Your task to perform on an android device: Add "acer nitro" to the cart on costco, then select checkout. Image 0: 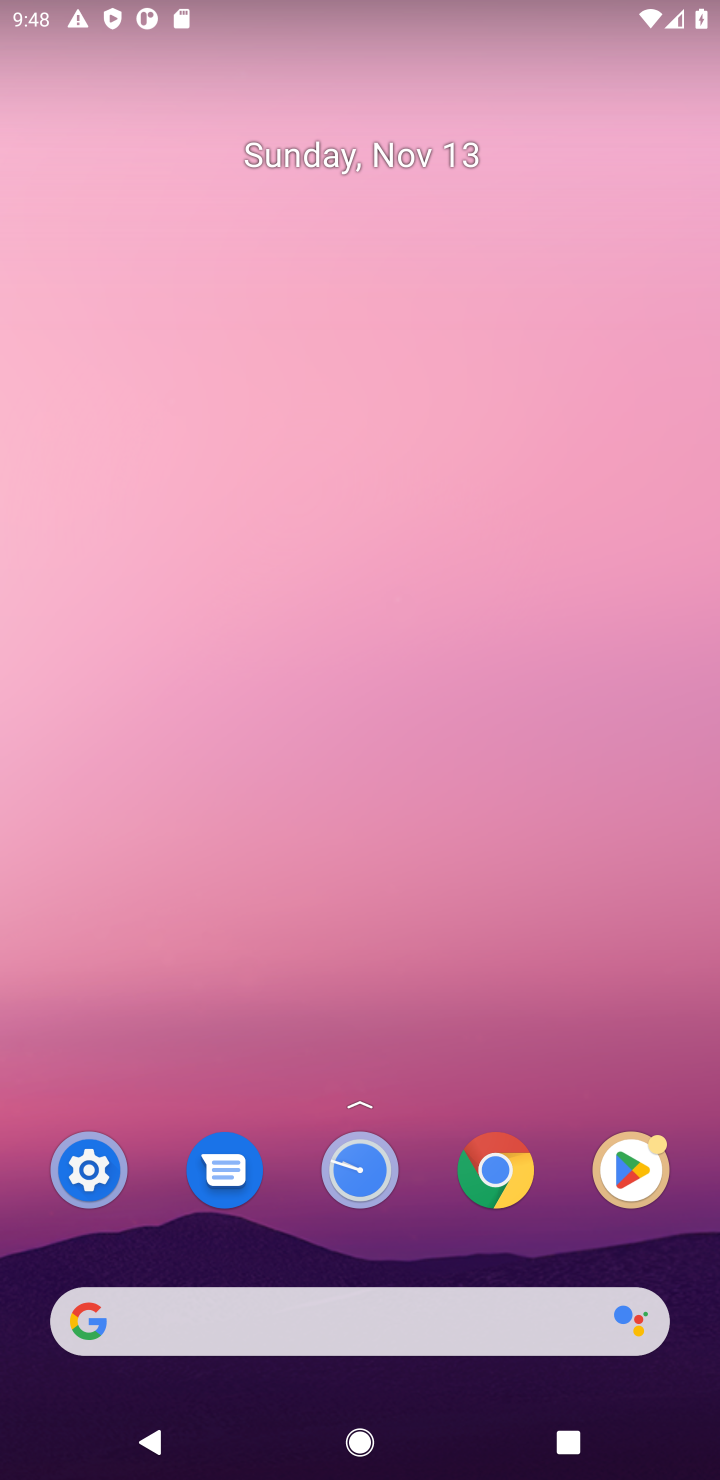
Step 0: press home button
Your task to perform on an android device: Add "acer nitro" to the cart on costco, then select checkout. Image 1: 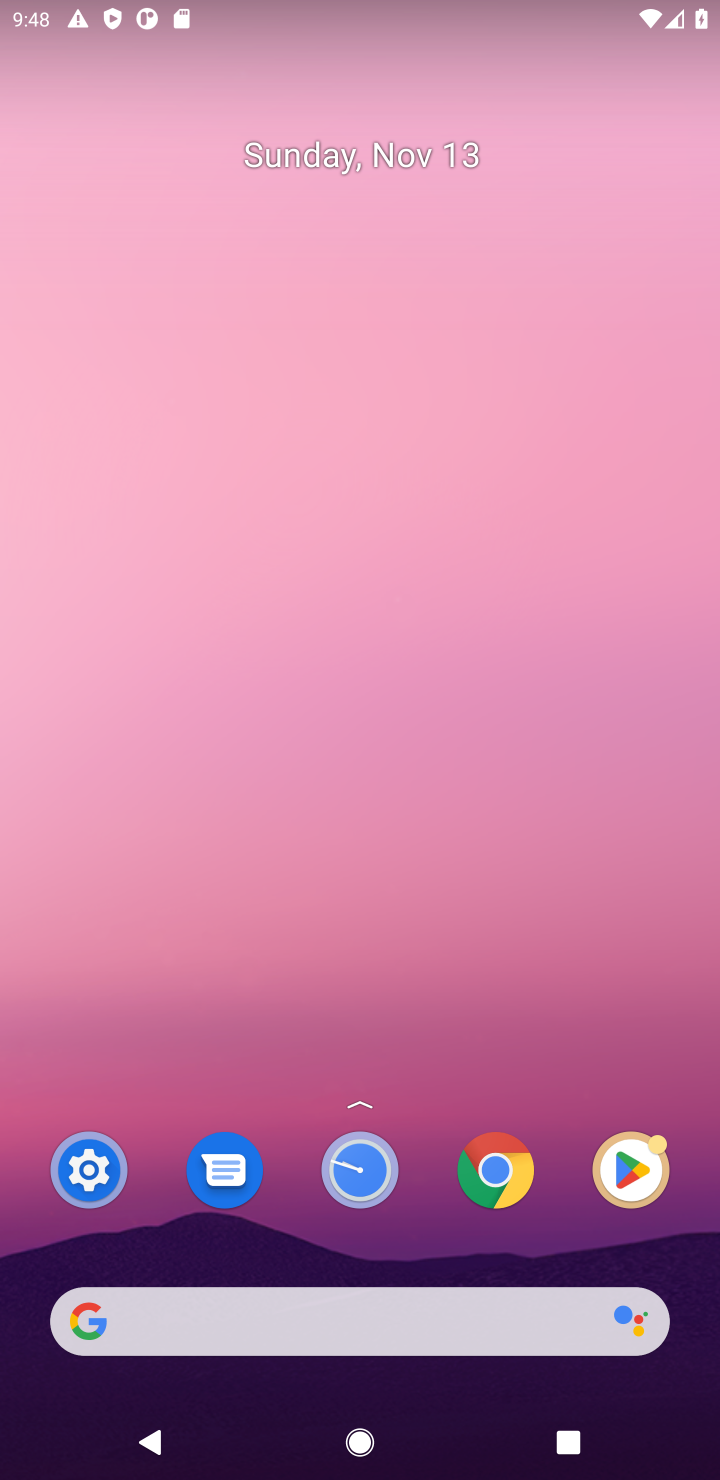
Step 1: click (342, 1317)
Your task to perform on an android device: Add "acer nitro" to the cart on costco, then select checkout. Image 2: 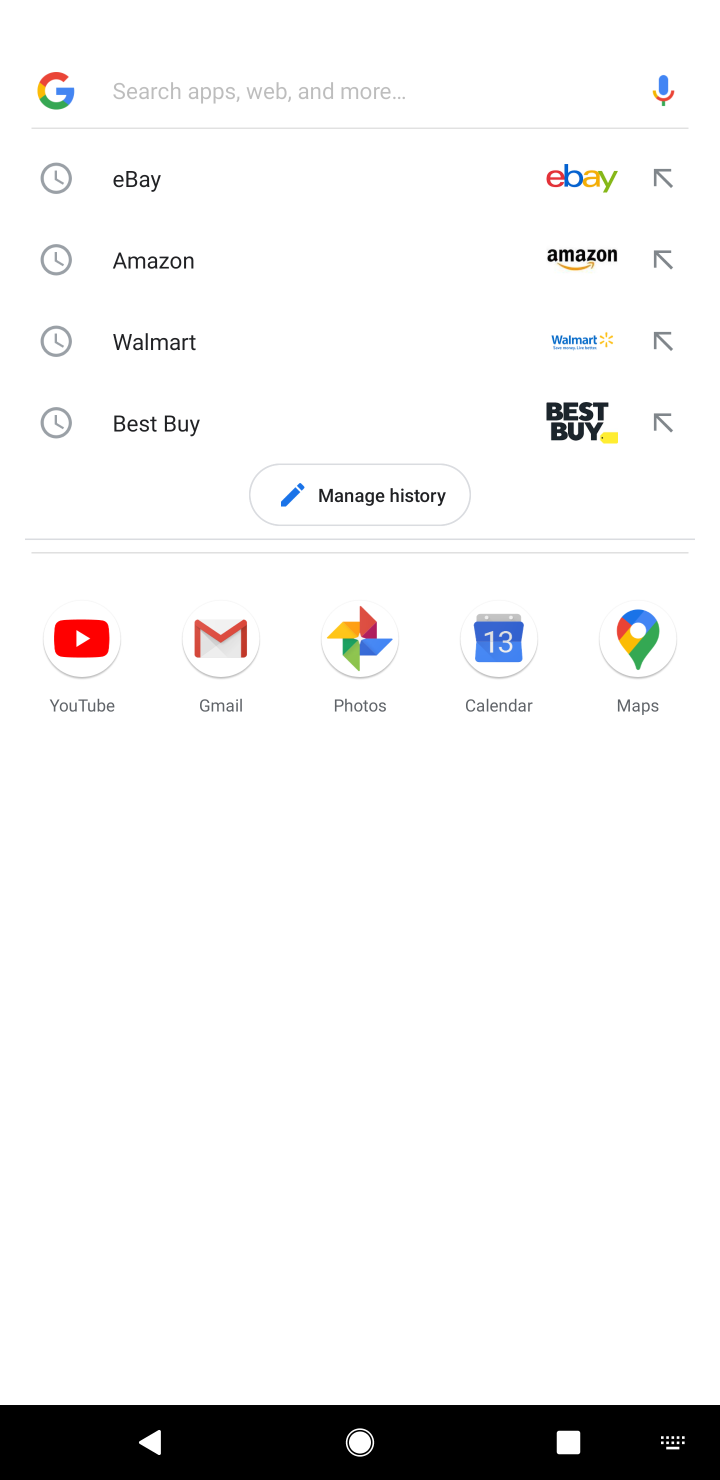
Step 2: type "costco.com"
Your task to perform on an android device: Add "acer nitro" to the cart on costco, then select checkout. Image 3: 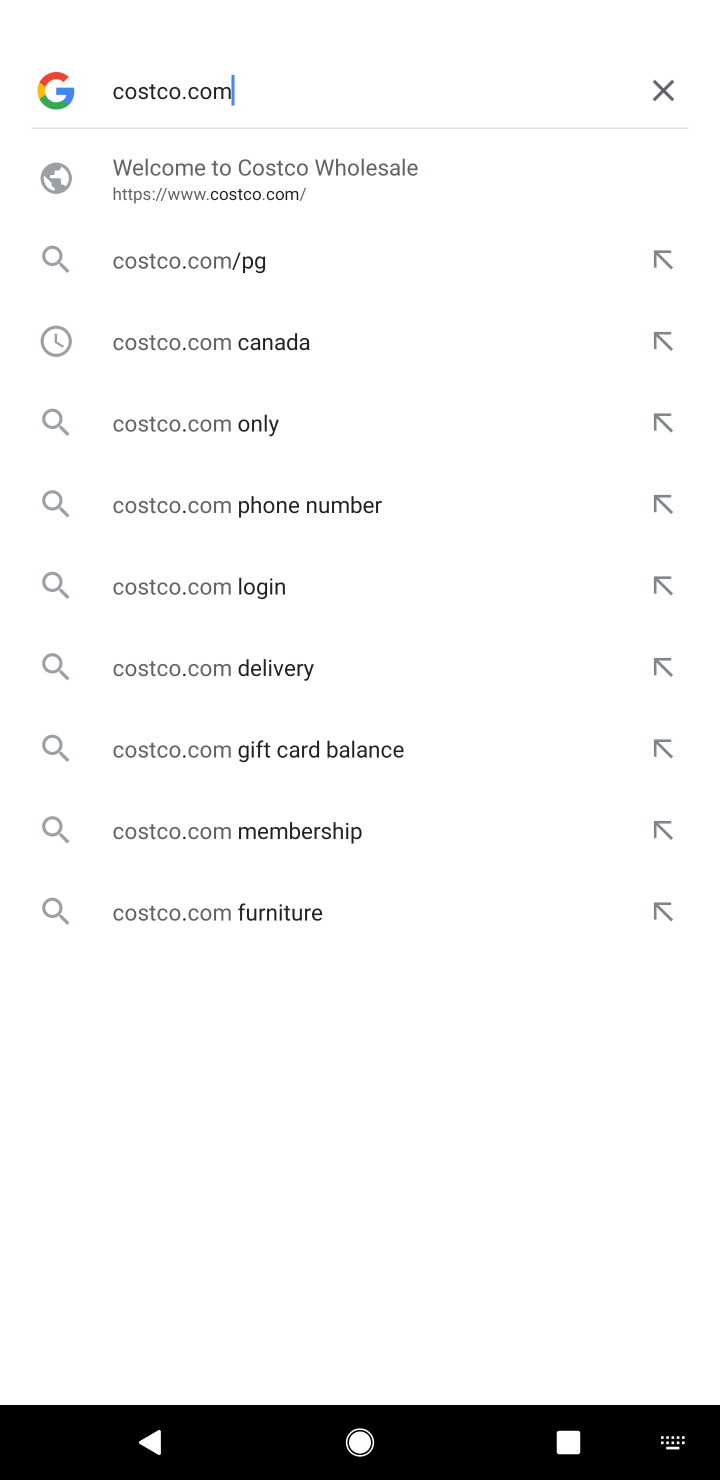
Step 3: click (305, 192)
Your task to perform on an android device: Add "acer nitro" to the cart on costco, then select checkout. Image 4: 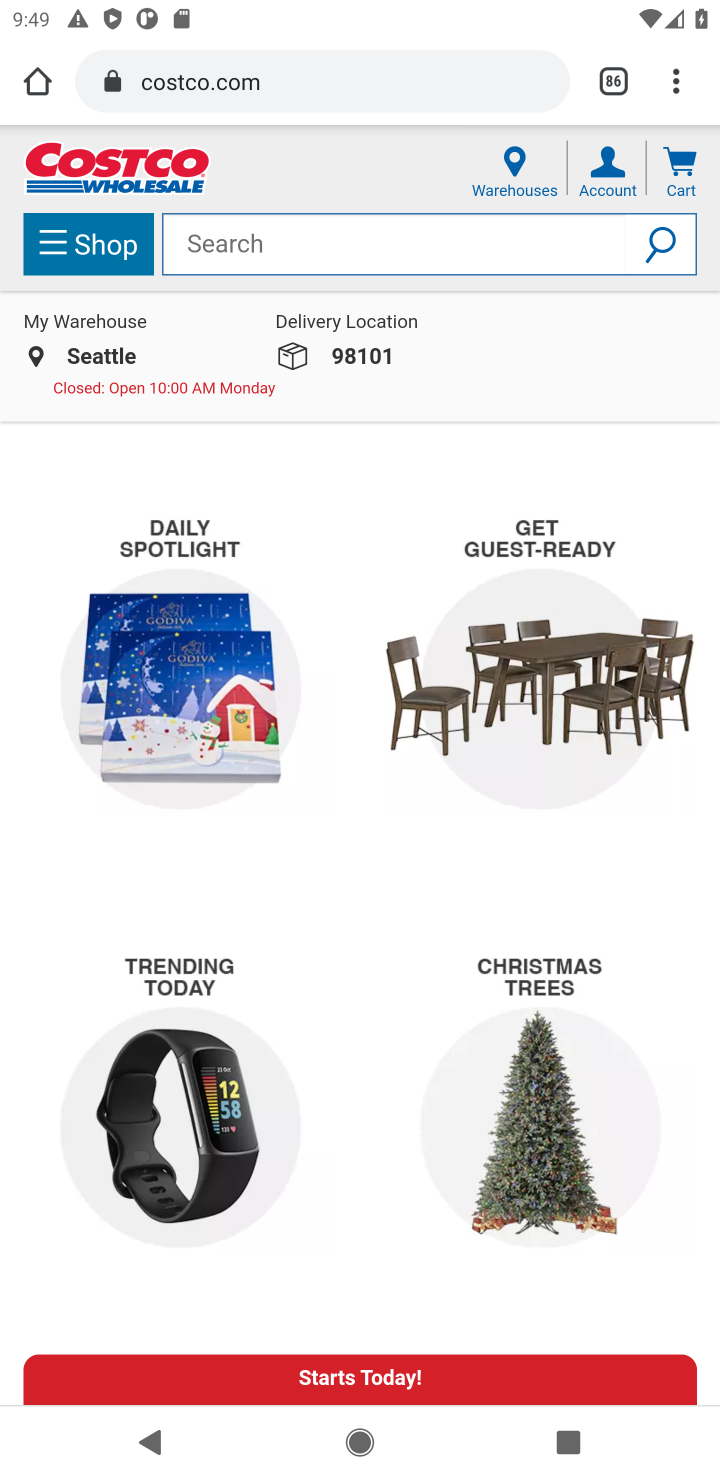
Step 4: click (342, 261)
Your task to perform on an android device: Add "acer nitro" to the cart on costco, then select checkout. Image 5: 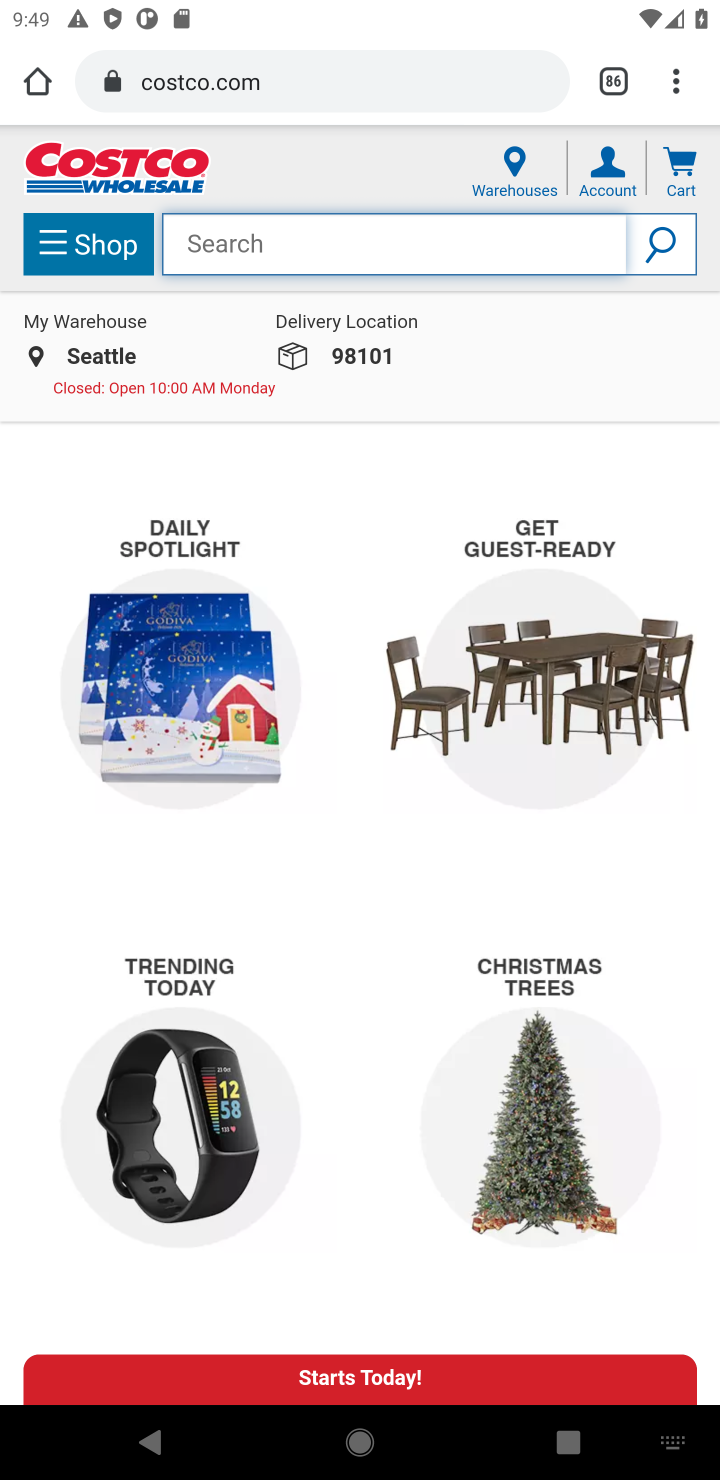
Step 5: type "costco.com"
Your task to perform on an android device: Add "acer nitro" to the cart on costco, then select checkout. Image 6: 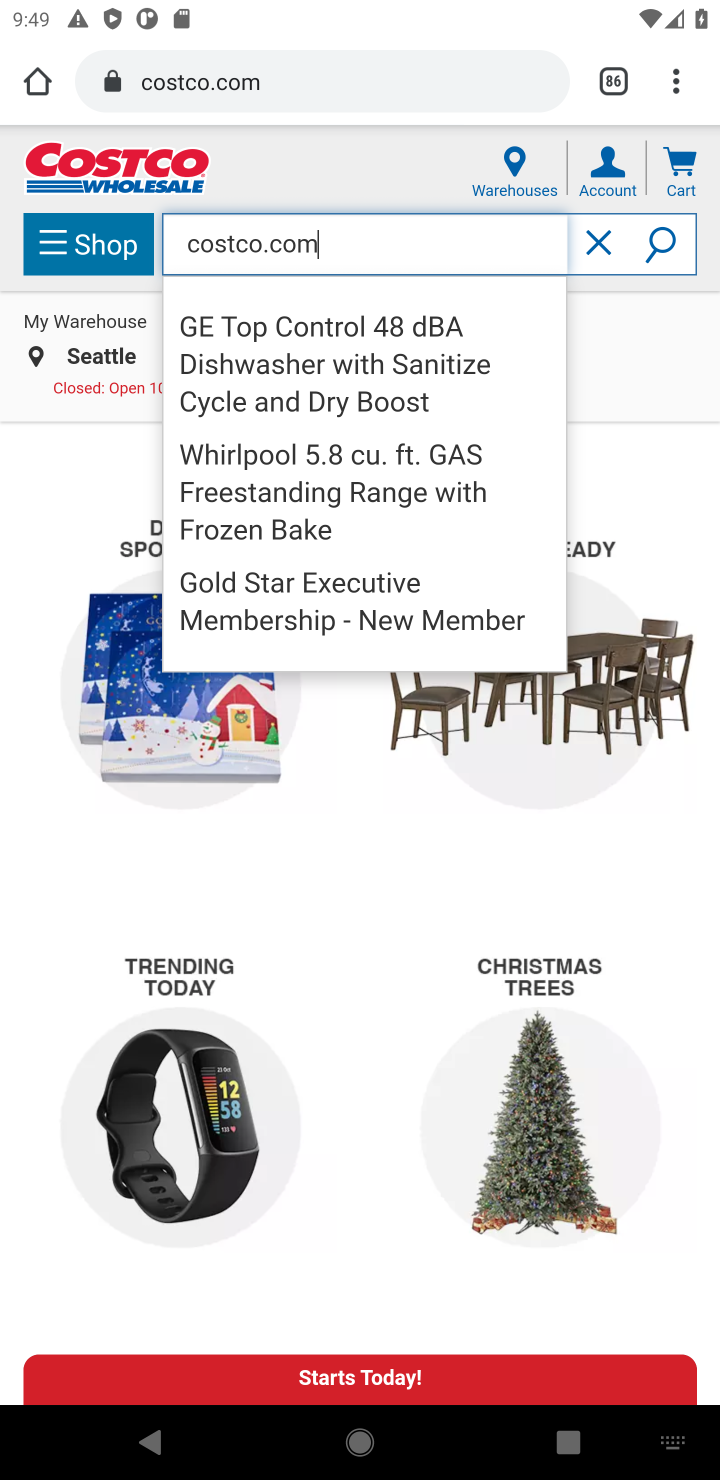
Step 6: click (593, 260)
Your task to perform on an android device: Add "acer nitro" to the cart on costco, then select checkout. Image 7: 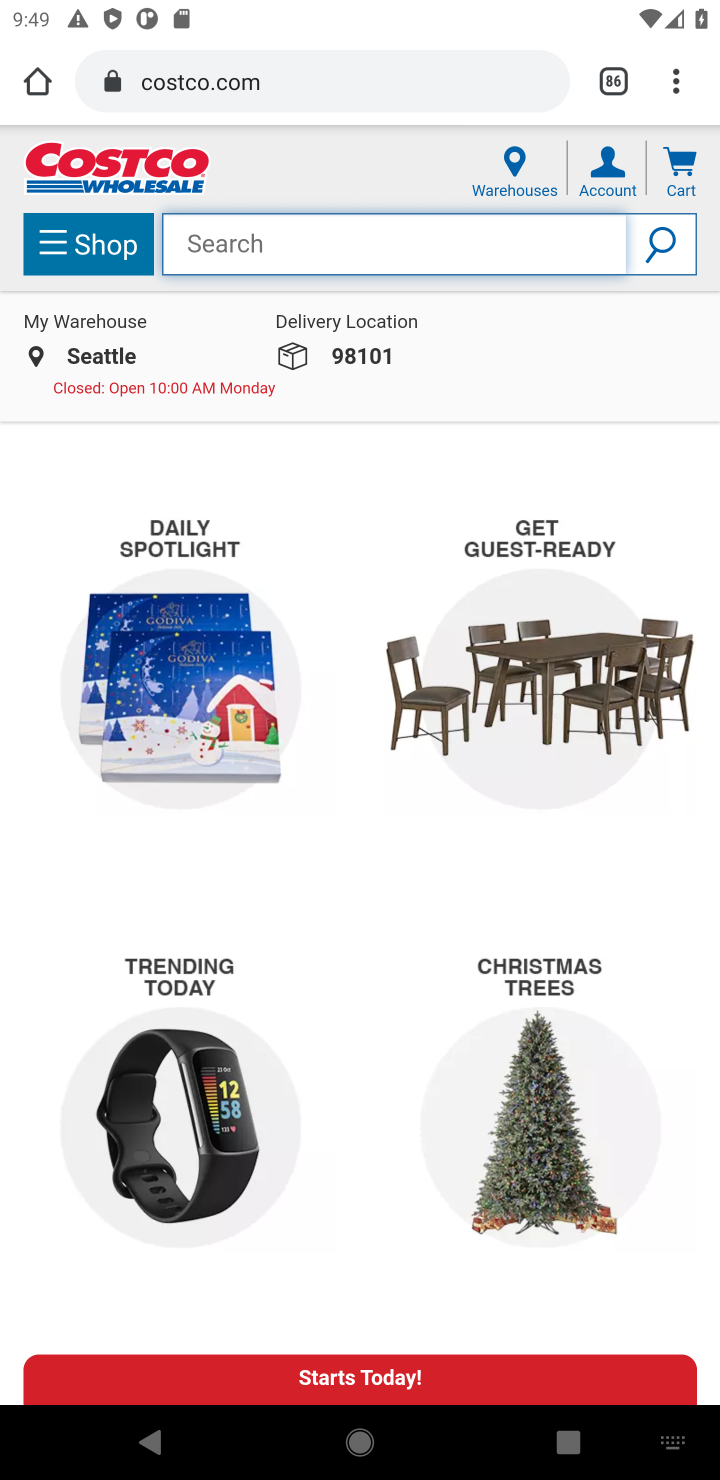
Step 7: task complete